Your task to perform on an android device: Open the web browser Image 0: 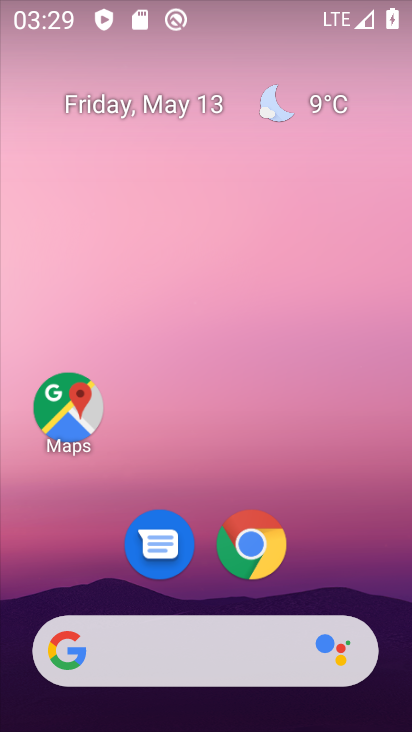
Step 0: drag from (314, 509) to (262, 72)
Your task to perform on an android device: Open the web browser Image 1: 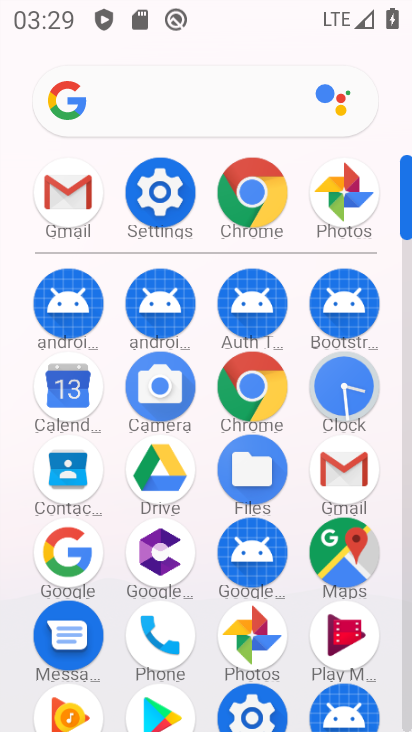
Step 1: drag from (9, 597) to (30, 267)
Your task to perform on an android device: Open the web browser Image 2: 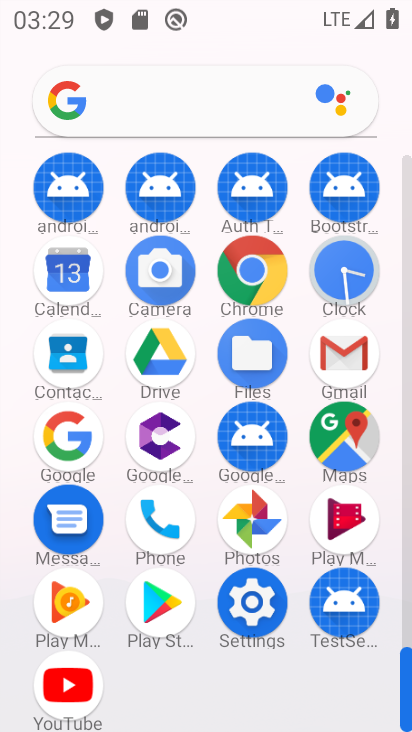
Step 2: click (244, 269)
Your task to perform on an android device: Open the web browser Image 3: 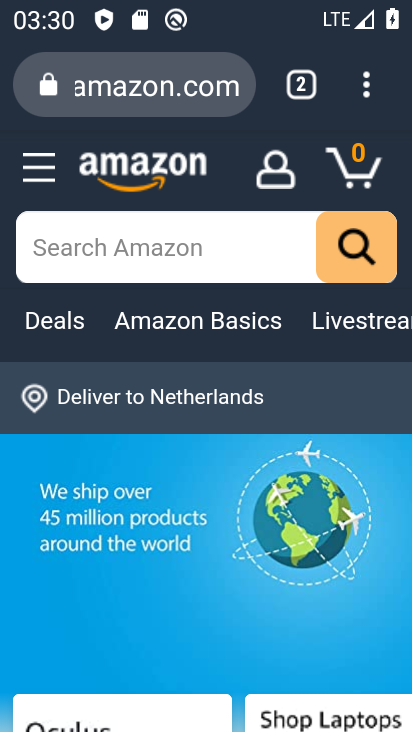
Step 3: task complete